Your task to perform on an android device: Open CNN.com Image 0: 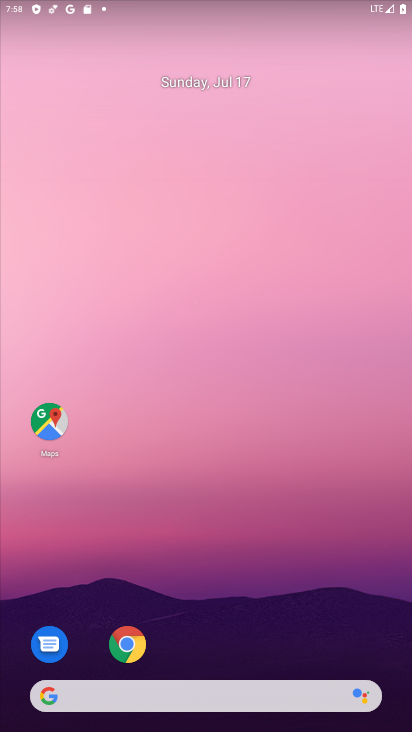
Step 0: click (126, 650)
Your task to perform on an android device: Open CNN.com Image 1: 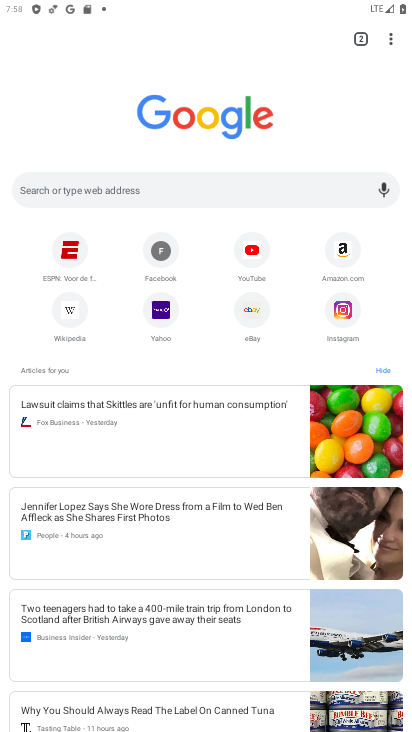
Step 1: click (175, 187)
Your task to perform on an android device: Open CNN.com Image 2: 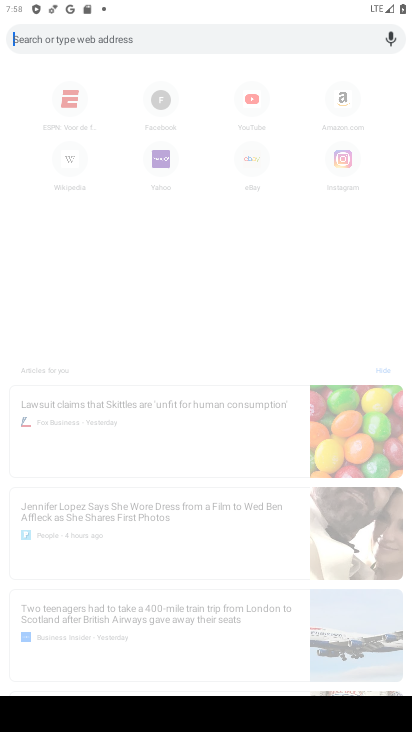
Step 2: type "CNN.com"
Your task to perform on an android device: Open CNN.com Image 3: 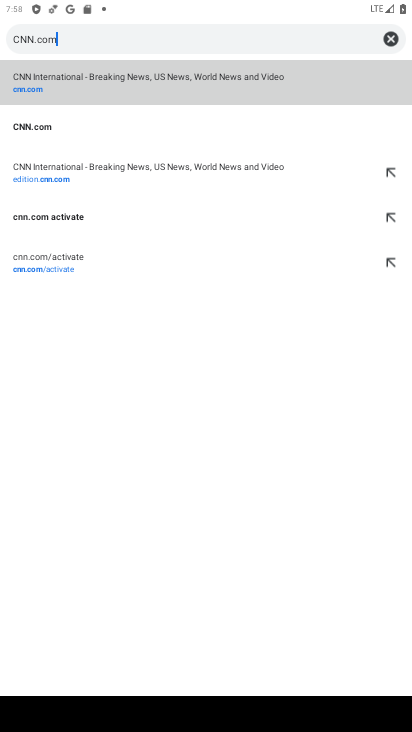
Step 3: click (126, 87)
Your task to perform on an android device: Open CNN.com Image 4: 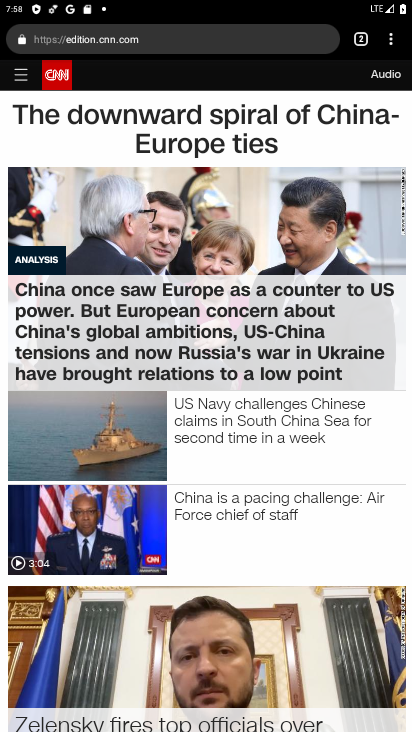
Step 4: task complete